Your task to perform on an android device: search for starred emails in the gmail app Image 0: 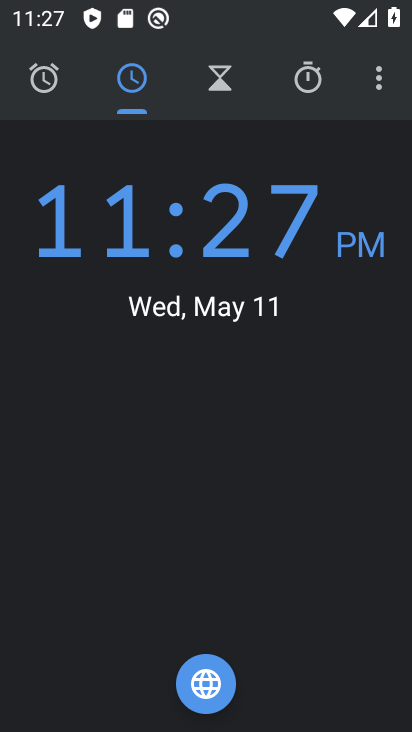
Step 0: task complete